Your task to perform on an android device: Go to privacy settings Image 0: 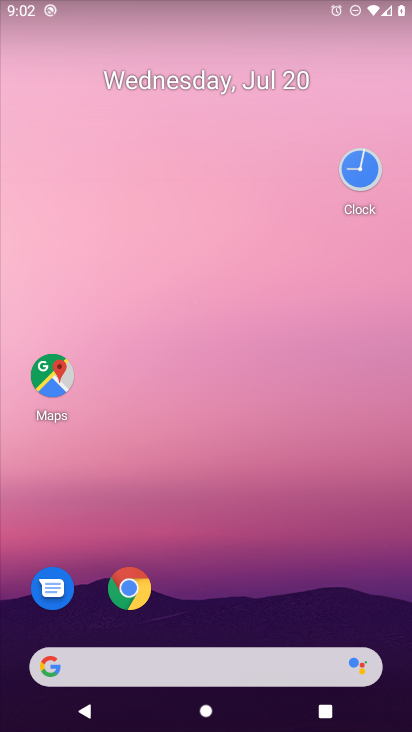
Step 0: drag from (21, 703) to (204, 170)
Your task to perform on an android device: Go to privacy settings Image 1: 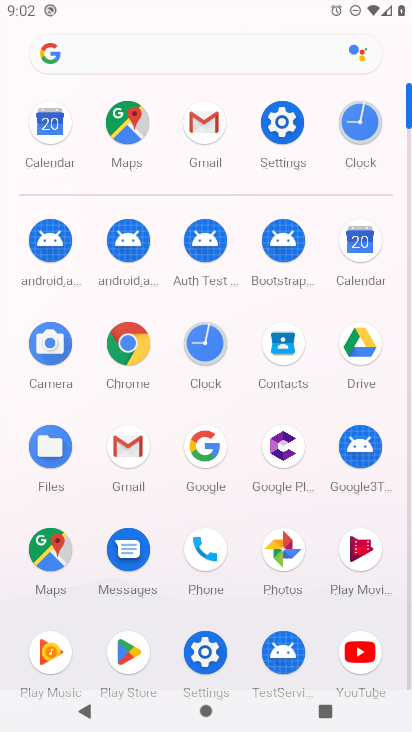
Step 1: click (200, 644)
Your task to perform on an android device: Go to privacy settings Image 2: 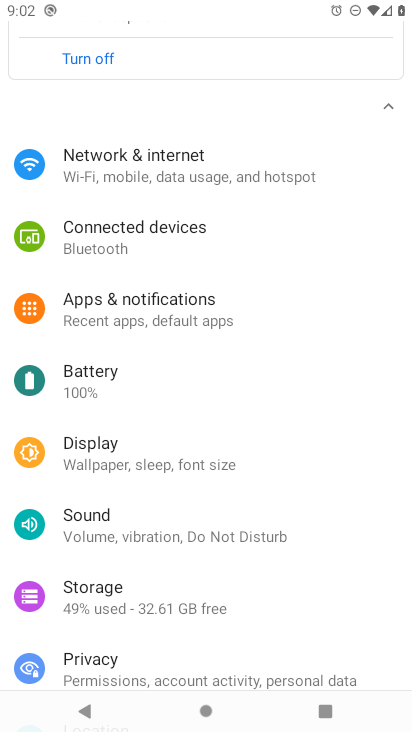
Step 2: click (95, 666)
Your task to perform on an android device: Go to privacy settings Image 3: 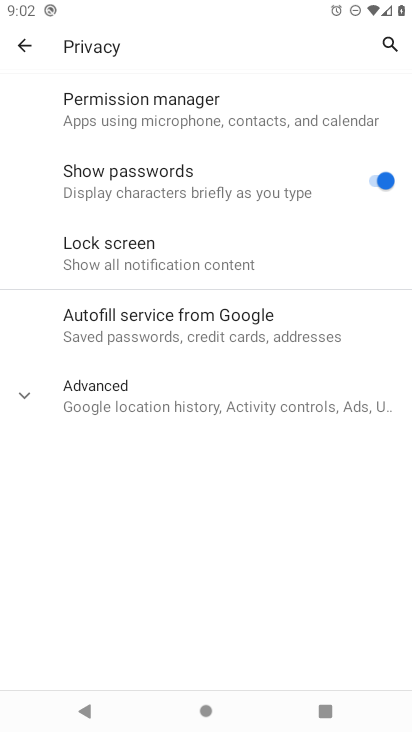
Step 3: task complete